Your task to perform on an android device: Go to eBay Image 0: 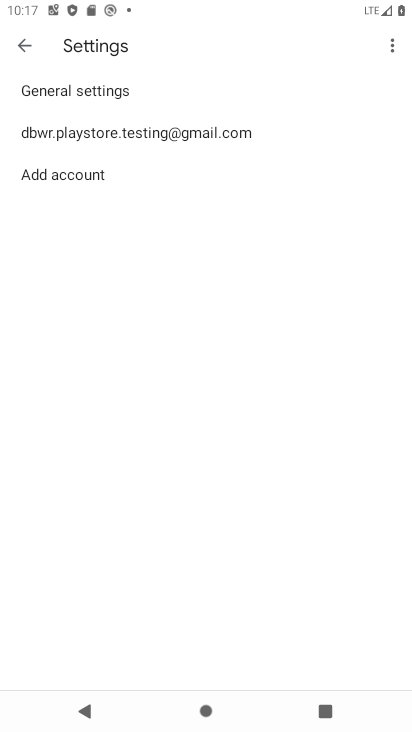
Step 0: press home button
Your task to perform on an android device: Go to eBay Image 1: 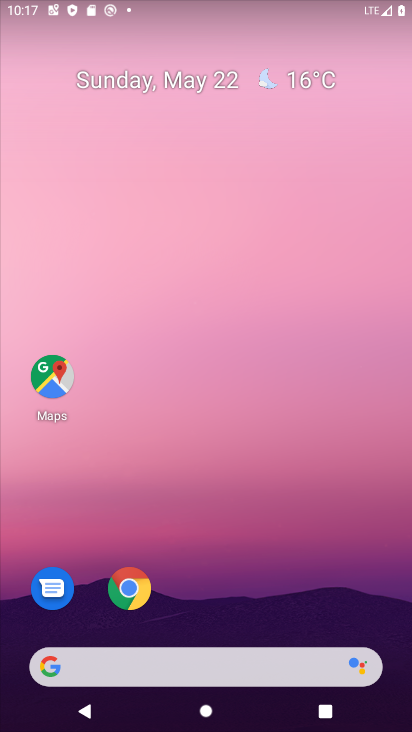
Step 1: click (145, 588)
Your task to perform on an android device: Go to eBay Image 2: 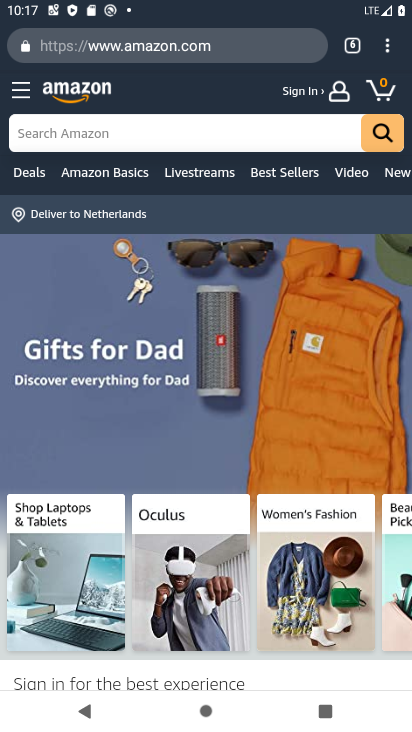
Step 2: click (352, 48)
Your task to perform on an android device: Go to eBay Image 3: 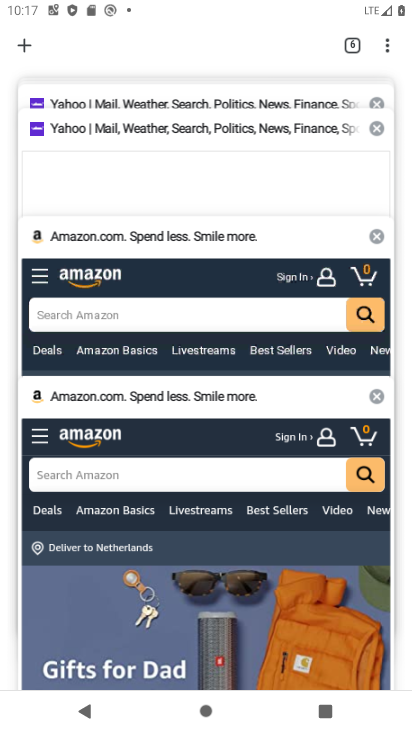
Step 3: click (33, 42)
Your task to perform on an android device: Go to eBay Image 4: 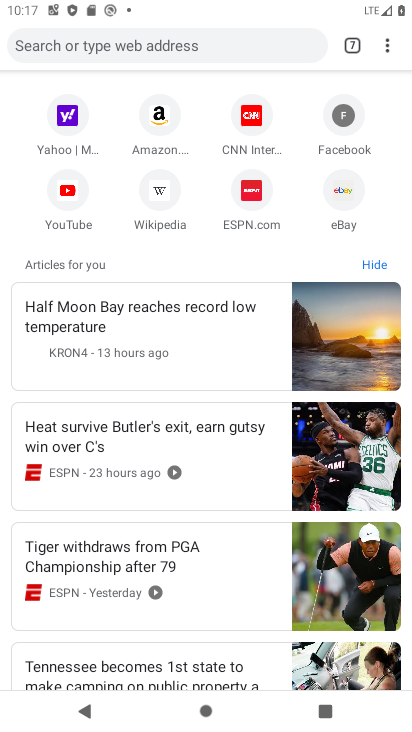
Step 4: click (336, 177)
Your task to perform on an android device: Go to eBay Image 5: 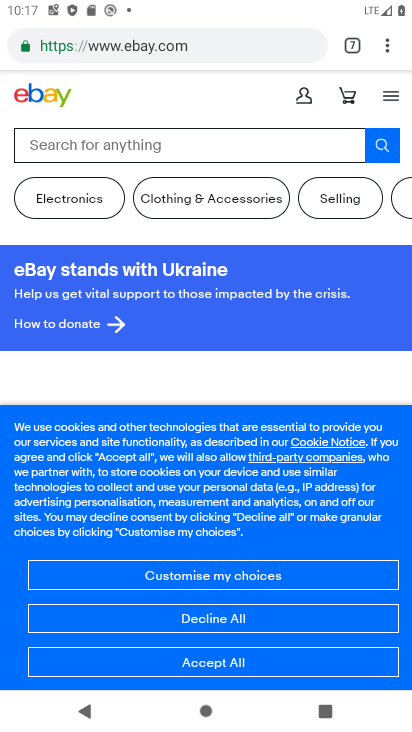
Step 5: task complete